Your task to perform on an android device: Open wifi settings Image 0: 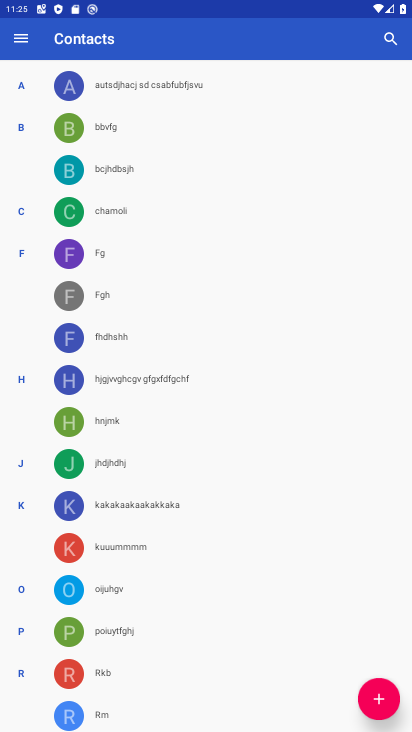
Step 0: press home button
Your task to perform on an android device: Open wifi settings Image 1: 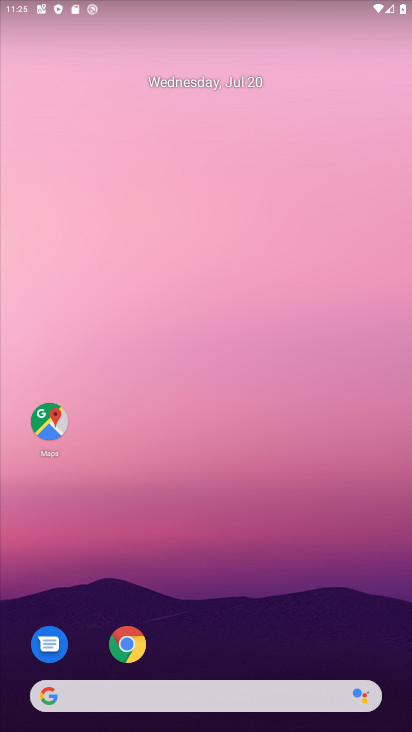
Step 1: drag from (180, 696) to (167, 416)
Your task to perform on an android device: Open wifi settings Image 2: 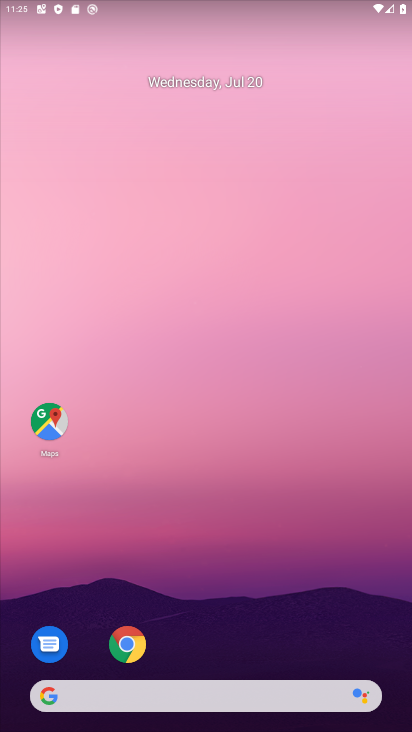
Step 2: drag from (233, 602) to (249, 101)
Your task to perform on an android device: Open wifi settings Image 3: 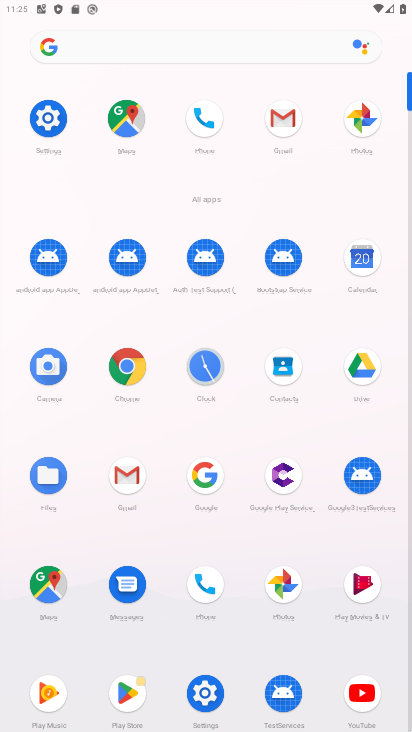
Step 3: click (42, 114)
Your task to perform on an android device: Open wifi settings Image 4: 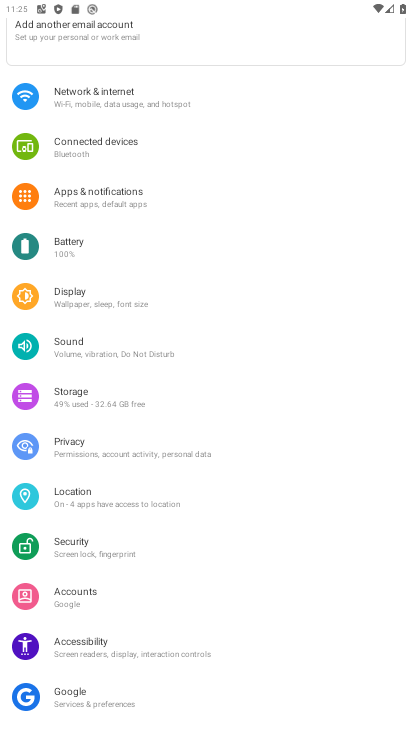
Step 4: click (84, 91)
Your task to perform on an android device: Open wifi settings Image 5: 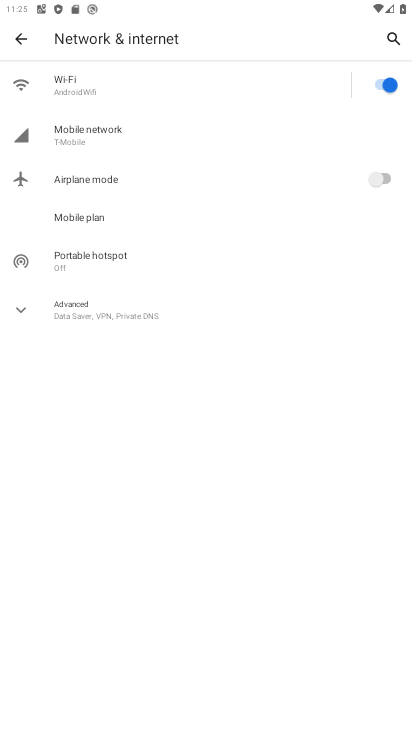
Step 5: click (53, 80)
Your task to perform on an android device: Open wifi settings Image 6: 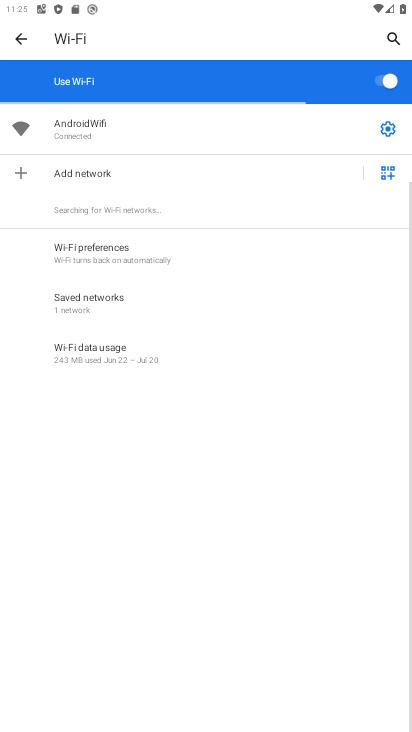
Step 6: click (386, 128)
Your task to perform on an android device: Open wifi settings Image 7: 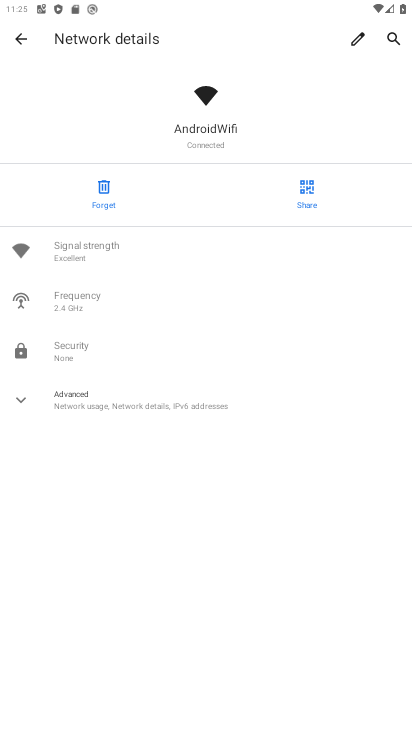
Step 7: click (127, 411)
Your task to perform on an android device: Open wifi settings Image 8: 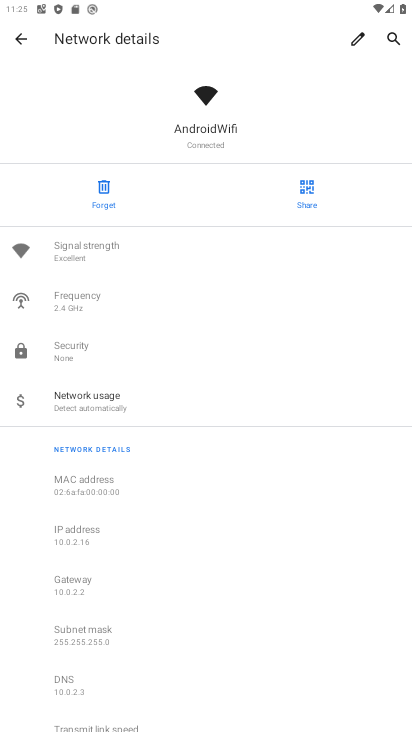
Step 8: task complete